Your task to perform on an android device: change keyboard looks Image 0: 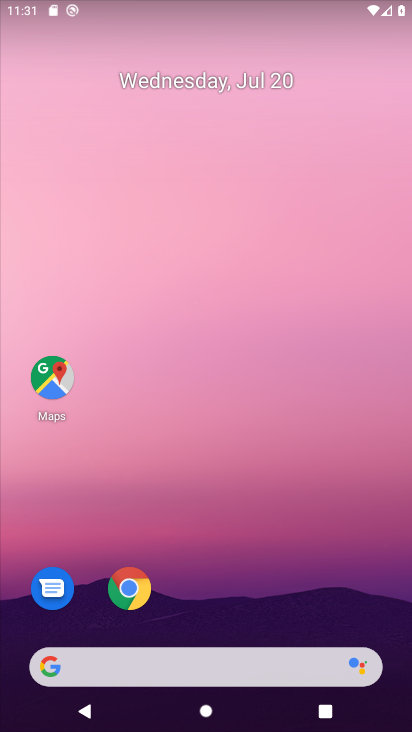
Step 0: press home button
Your task to perform on an android device: change keyboard looks Image 1: 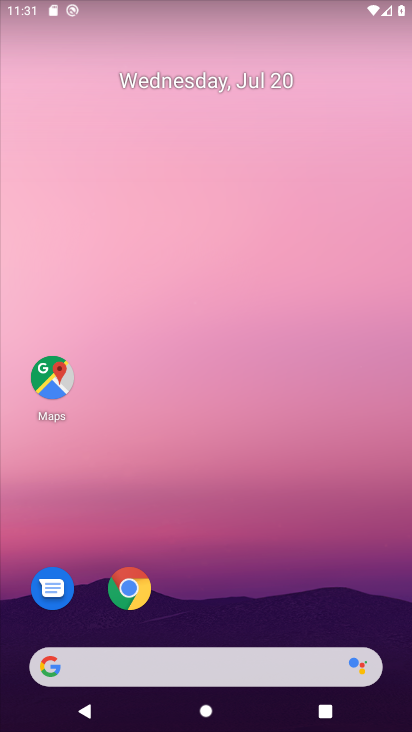
Step 1: drag from (220, 629) to (285, 75)
Your task to perform on an android device: change keyboard looks Image 2: 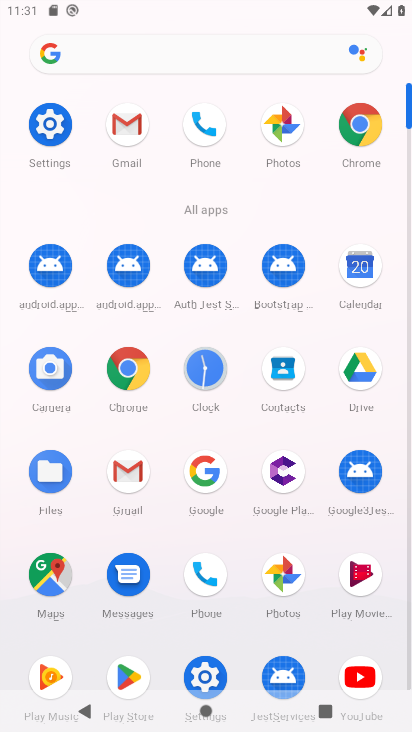
Step 2: click (43, 117)
Your task to perform on an android device: change keyboard looks Image 3: 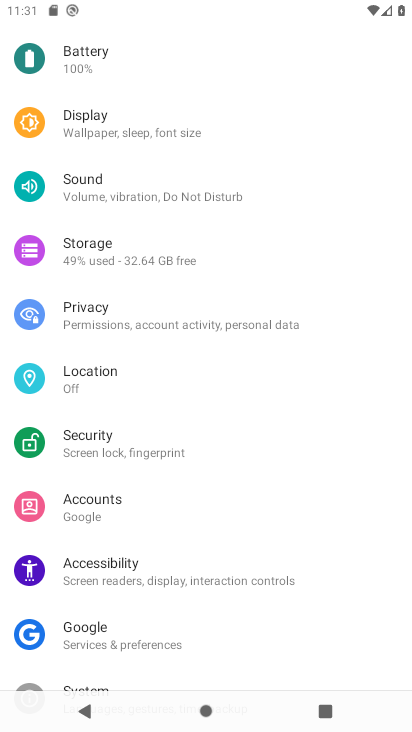
Step 3: drag from (192, 632) to (257, 213)
Your task to perform on an android device: change keyboard looks Image 4: 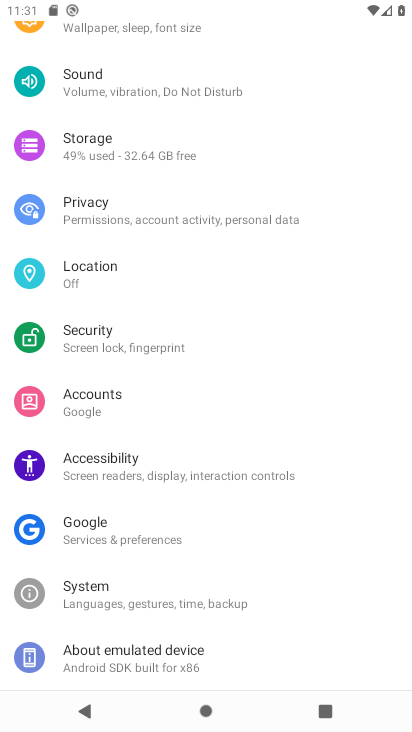
Step 4: click (131, 583)
Your task to perform on an android device: change keyboard looks Image 5: 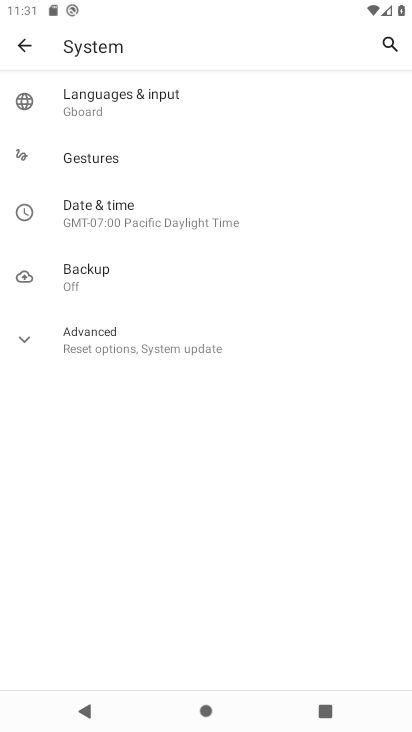
Step 5: click (113, 101)
Your task to perform on an android device: change keyboard looks Image 6: 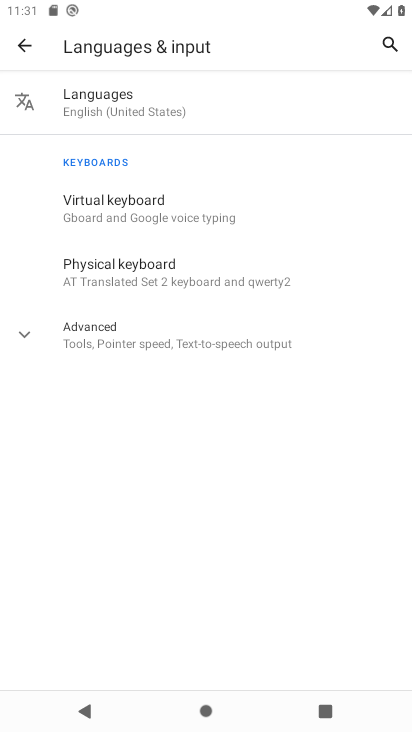
Step 6: click (173, 198)
Your task to perform on an android device: change keyboard looks Image 7: 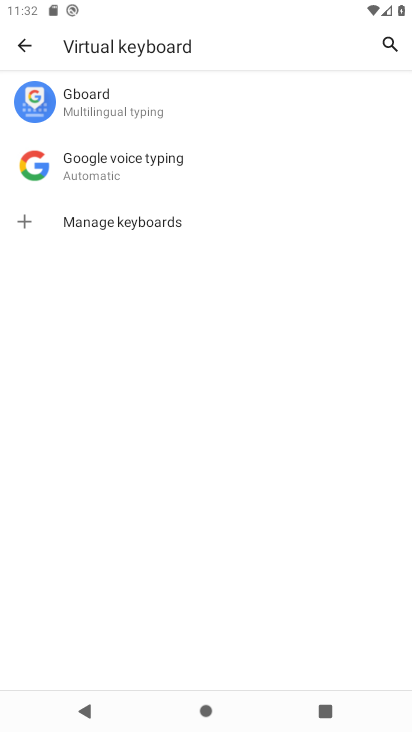
Step 7: click (142, 96)
Your task to perform on an android device: change keyboard looks Image 8: 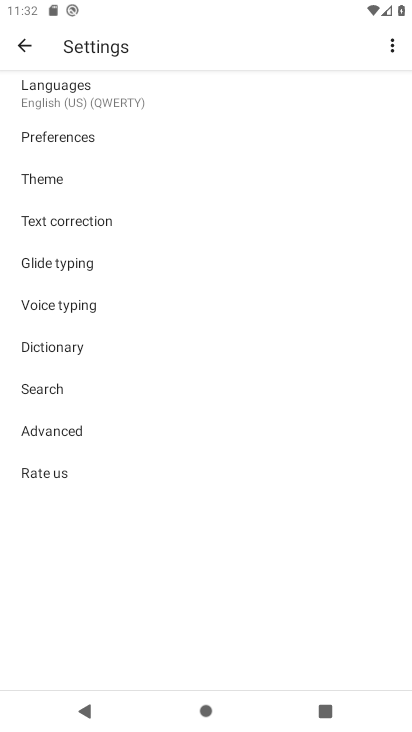
Step 8: click (67, 179)
Your task to perform on an android device: change keyboard looks Image 9: 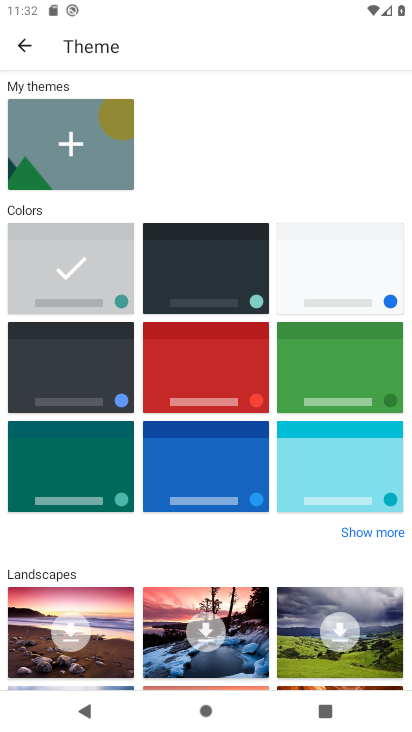
Step 9: click (329, 372)
Your task to perform on an android device: change keyboard looks Image 10: 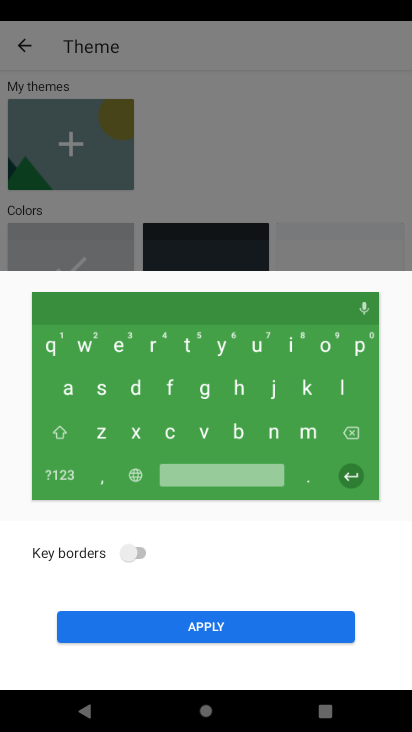
Step 10: click (210, 625)
Your task to perform on an android device: change keyboard looks Image 11: 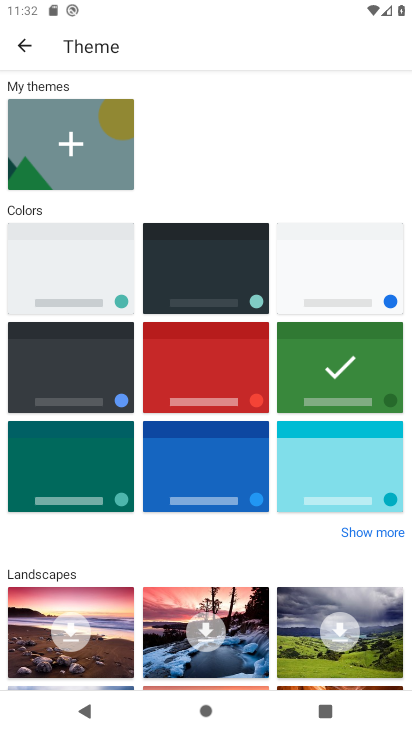
Step 11: task complete